Your task to perform on an android device: turn on the 24-hour format for clock Image 0: 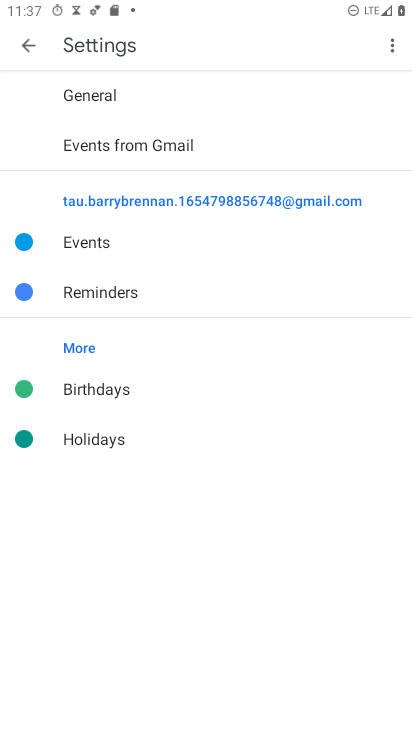
Step 0: press home button
Your task to perform on an android device: turn on the 24-hour format for clock Image 1: 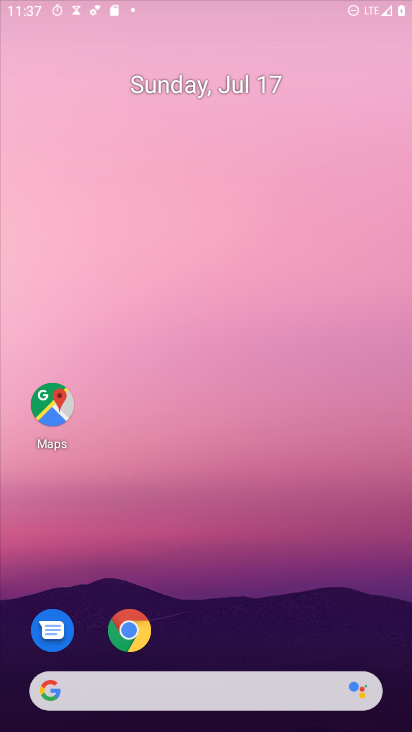
Step 1: drag from (296, 693) to (287, 64)
Your task to perform on an android device: turn on the 24-hour format for clock Image 2: 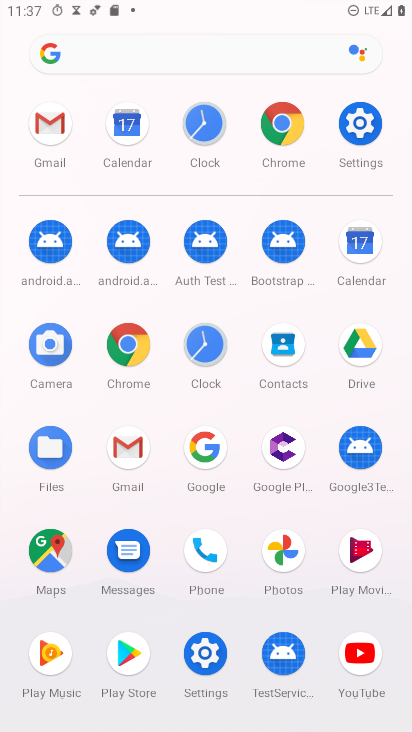
Step 2: click (213, 344)
Your task to perform on an android device: turn on the 24-hour format for clock Image 3: 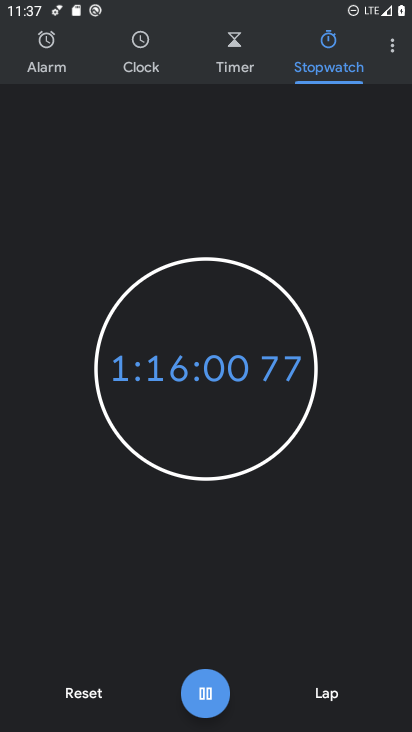
Step 3: click (392, 43)
Your task to perform on an android device: turn on the 24-hour format for clock Image 4: 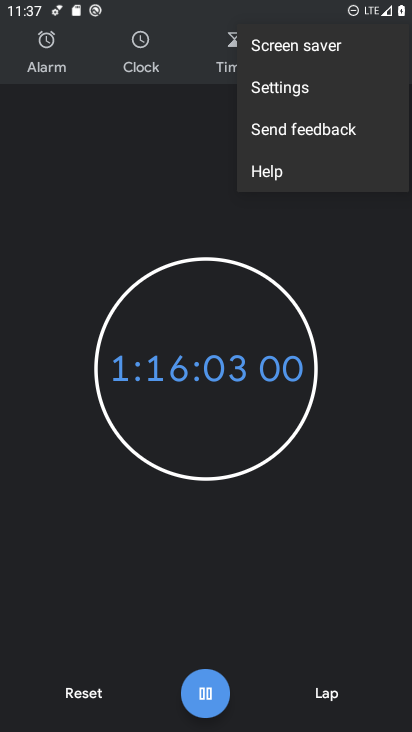
Step 4: click (325, 94)
Your task to perform on an android device: turn on the 24-hour format for clock Image 5: 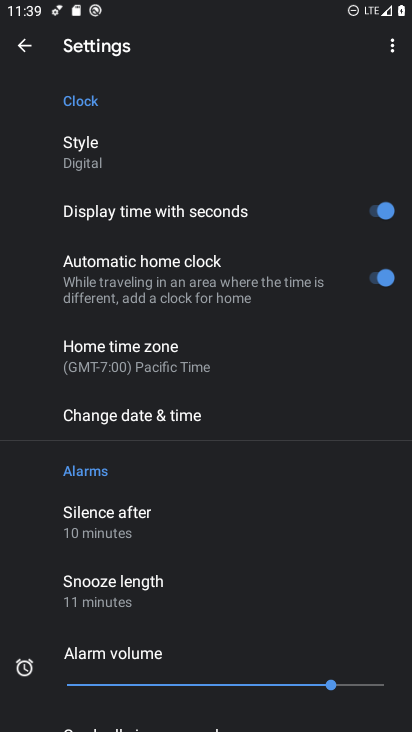
Step 5: click (153, 435)
Your task to perform on an android device: turn on the 24-hour format for clock Image 6: 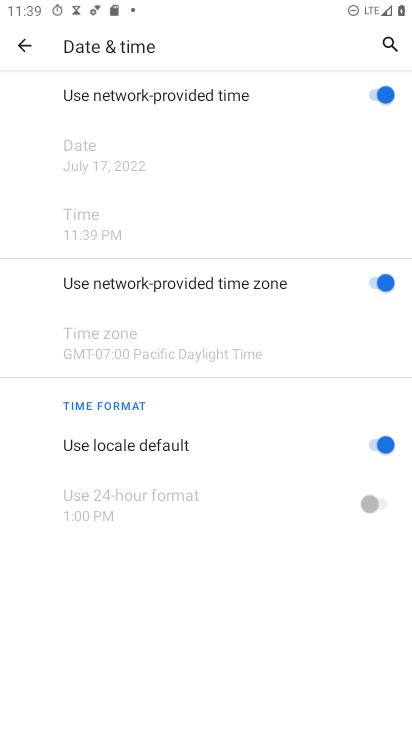
Step 6: click (376, 445)
Your task to perform on an android device: turn on the 24-hour format for clock Image 7: 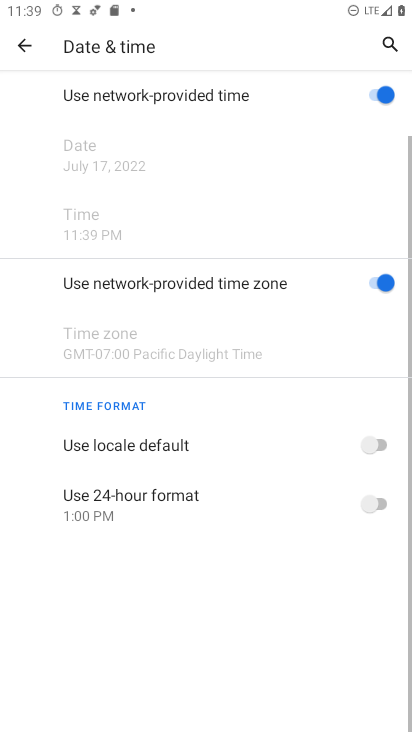
Step 7: click (379, 506)
Your task to perform on an android device: turn on the 24-hour format for clock Image 8: 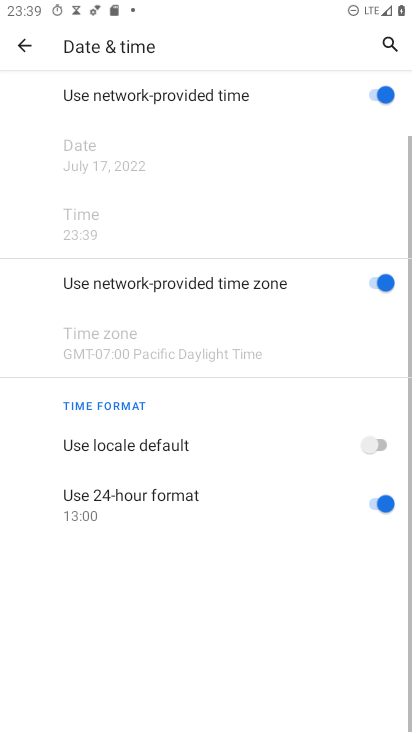
Step 8: task complete